Your task to perform on an android device: Open network settings Image 0: 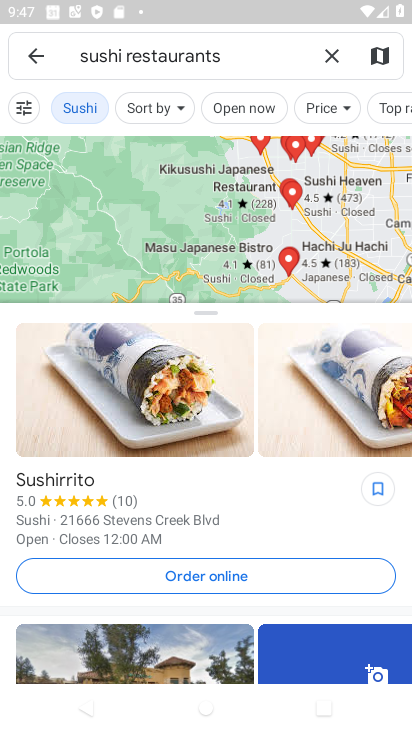
Step 0: press home button
Your task to perform on an android device: Open network settings Image 1: 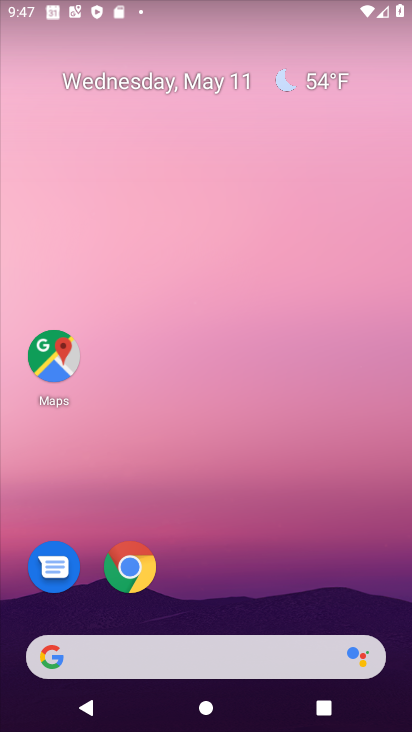
Step 1: drag from (238, 625) to (290, 0)
Your task to perform on an android device: Open network settings Image 2: 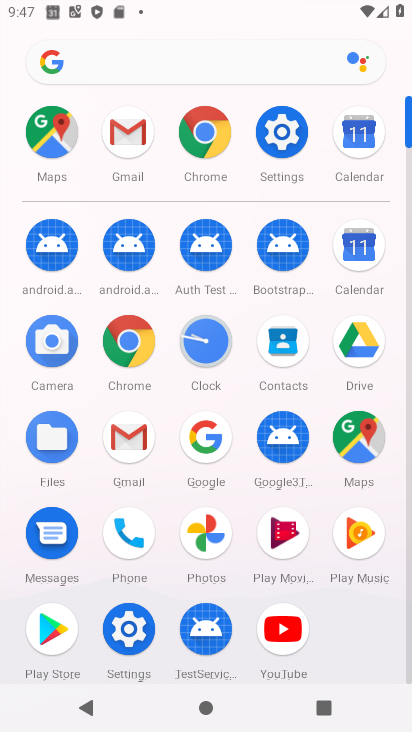
Step 2: click (124, 640)
Your task to perform on an android device: Open network settings Image 3: 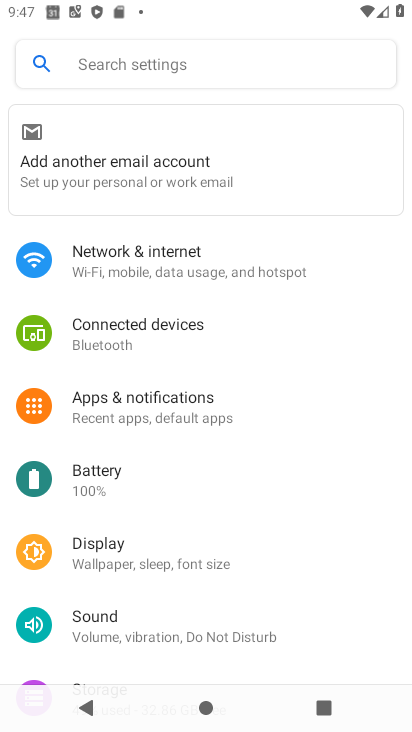
Step 3: click (201, 271)
Your task to perform on an android device: Open network settings Image 4: 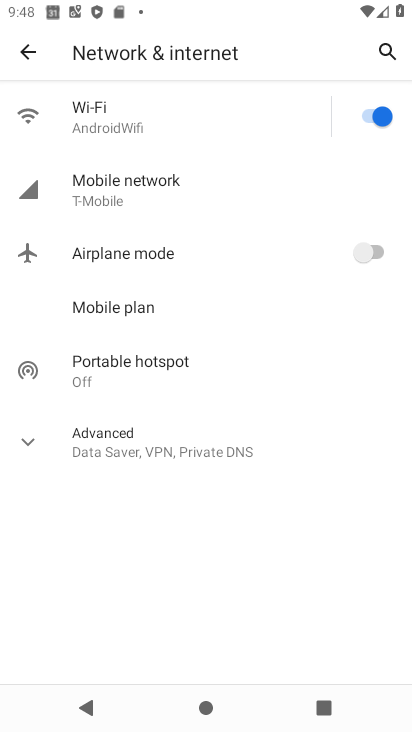
Step 4: task complete